Your task to perform on an android device: open chrome privacy settings Image 0: 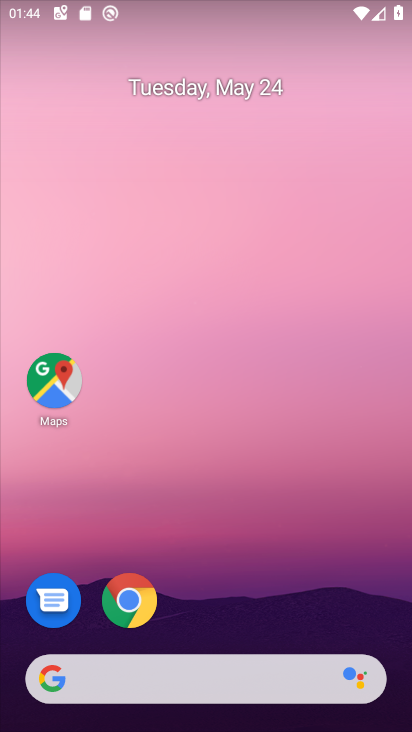
Step 0: click (127, 589)
Your task to perform on an android device: open chrome privacy settings Image 1: 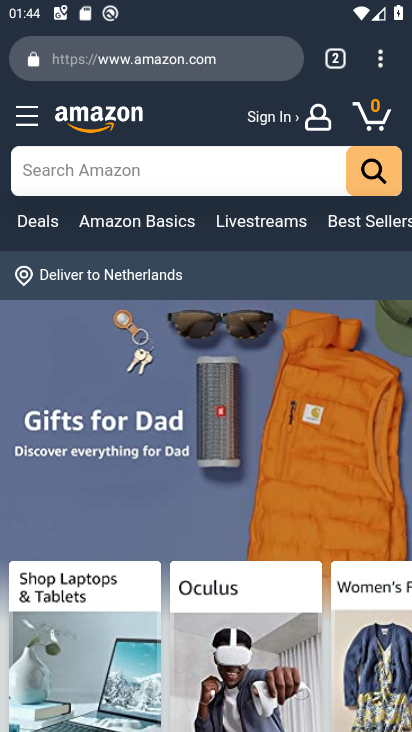
Step 1: click (376, 57)
Your task to perform on an android device: open chrome privacy settings Image 2: 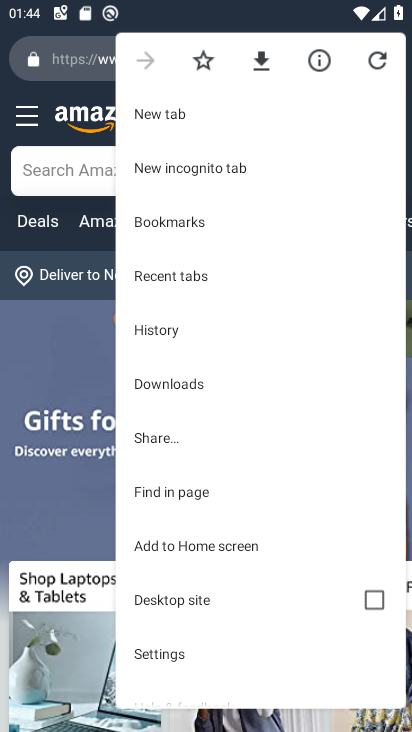
Step 2: click (200, 657)
Your task to perform on an android device: open chrome privacy settings Image 3: 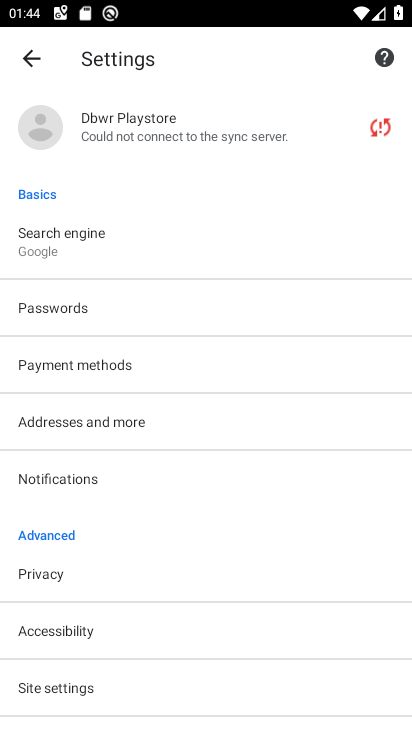
Step 3: click (142, 686)
Your task to perform on an android device: open chrome privacy settings Image 4: 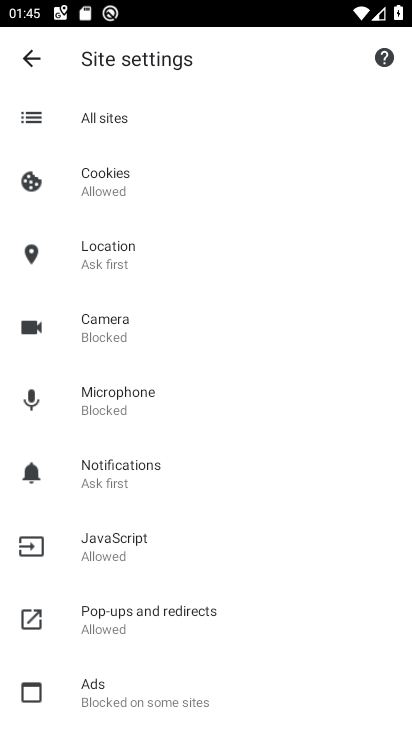
Step 4: task complete